Your task to perform on an android device: open app "VLC for Android" Image 0: 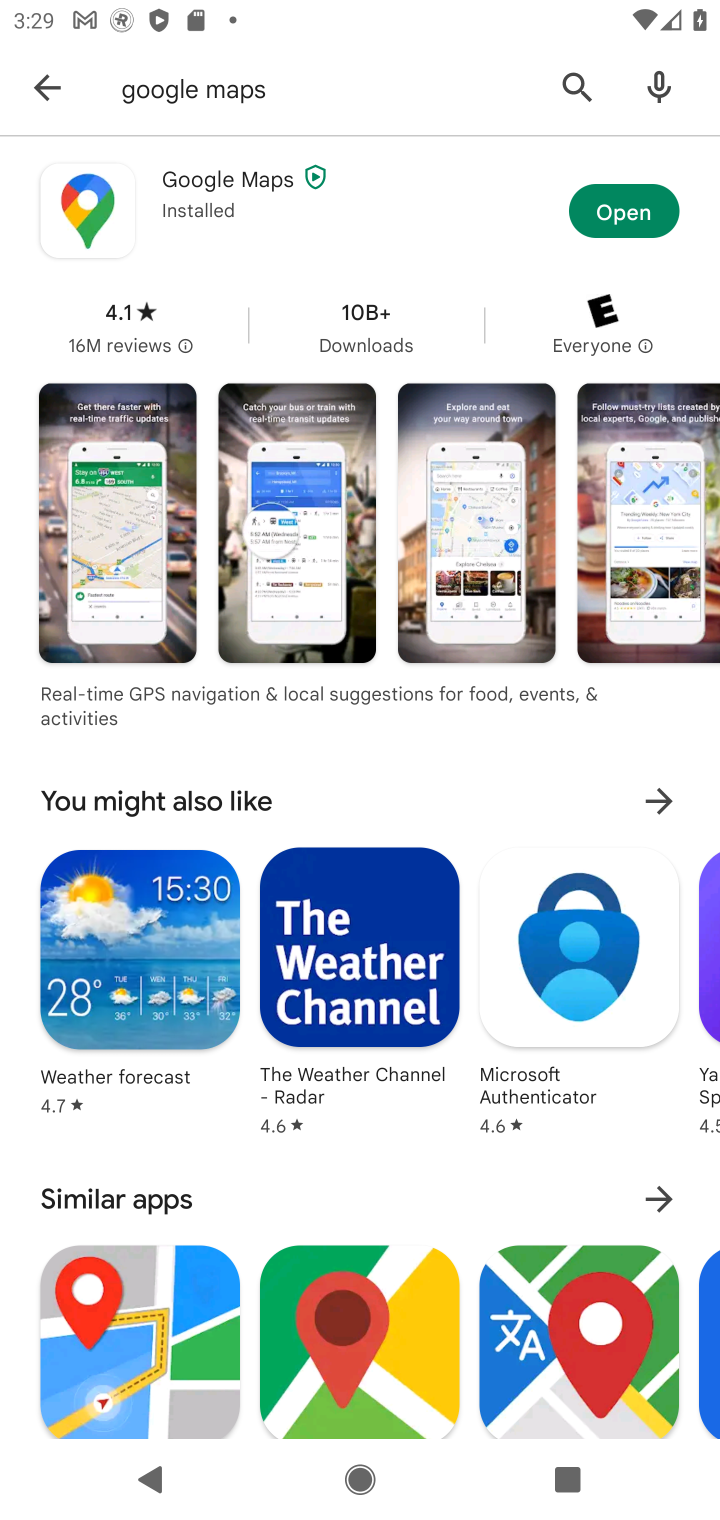
Step 0: press home button
Your task to perform on an android device: open app "VLC for Android" Image 1: 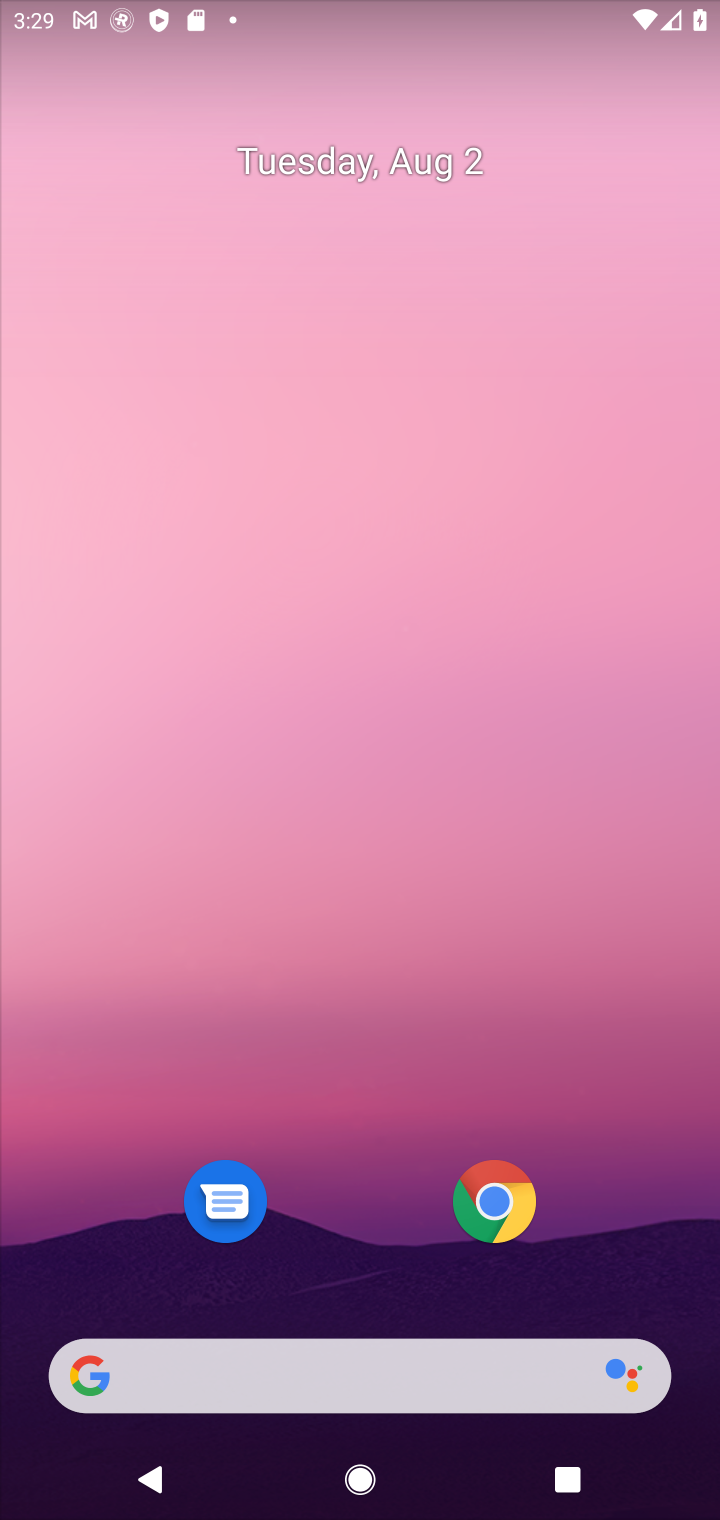
Step 1: drag from (378, 1292) to (416, 47)
Your task to perform on an android device: open app "VLC for Android" Image 2: 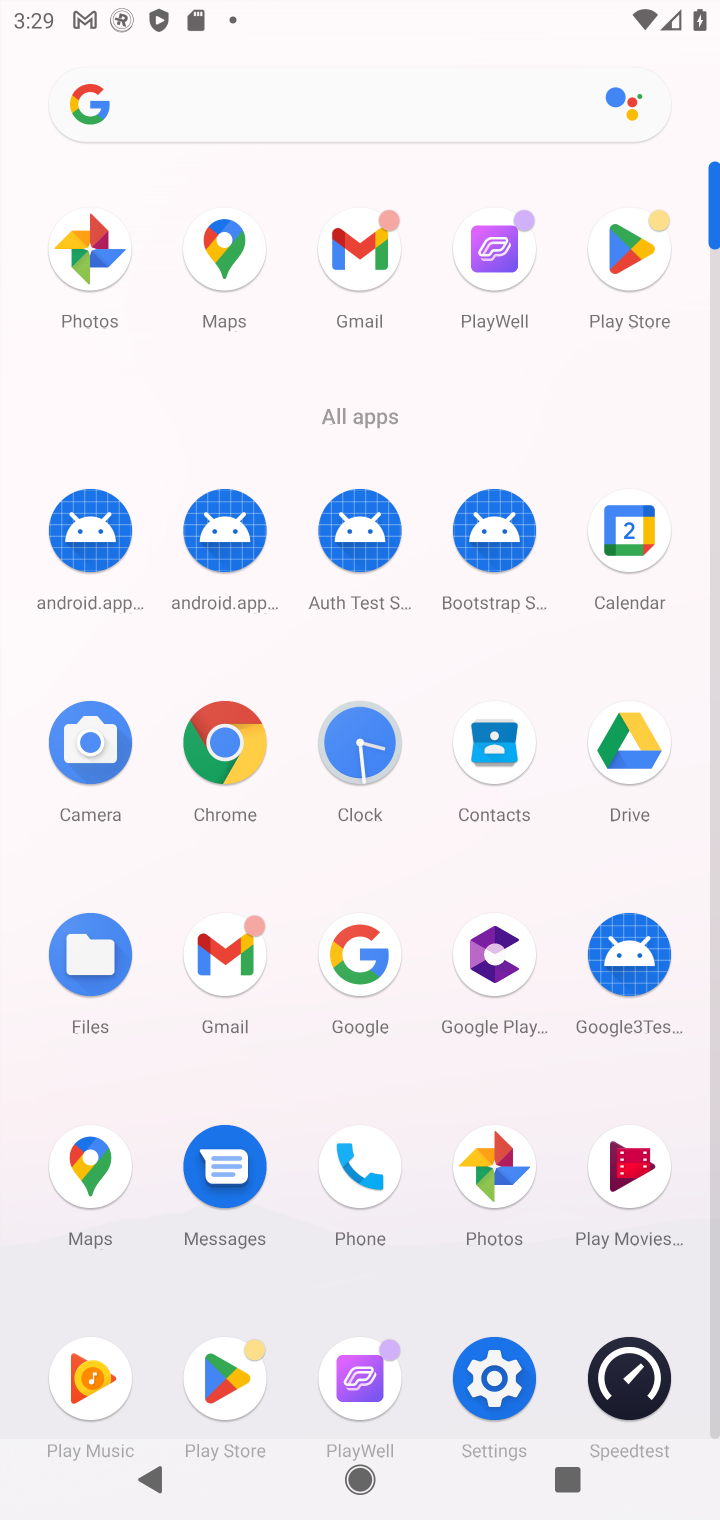
Step 2: click (622, 236)
Your task to perform on an android device: open app "VLC for Android" Image 3: 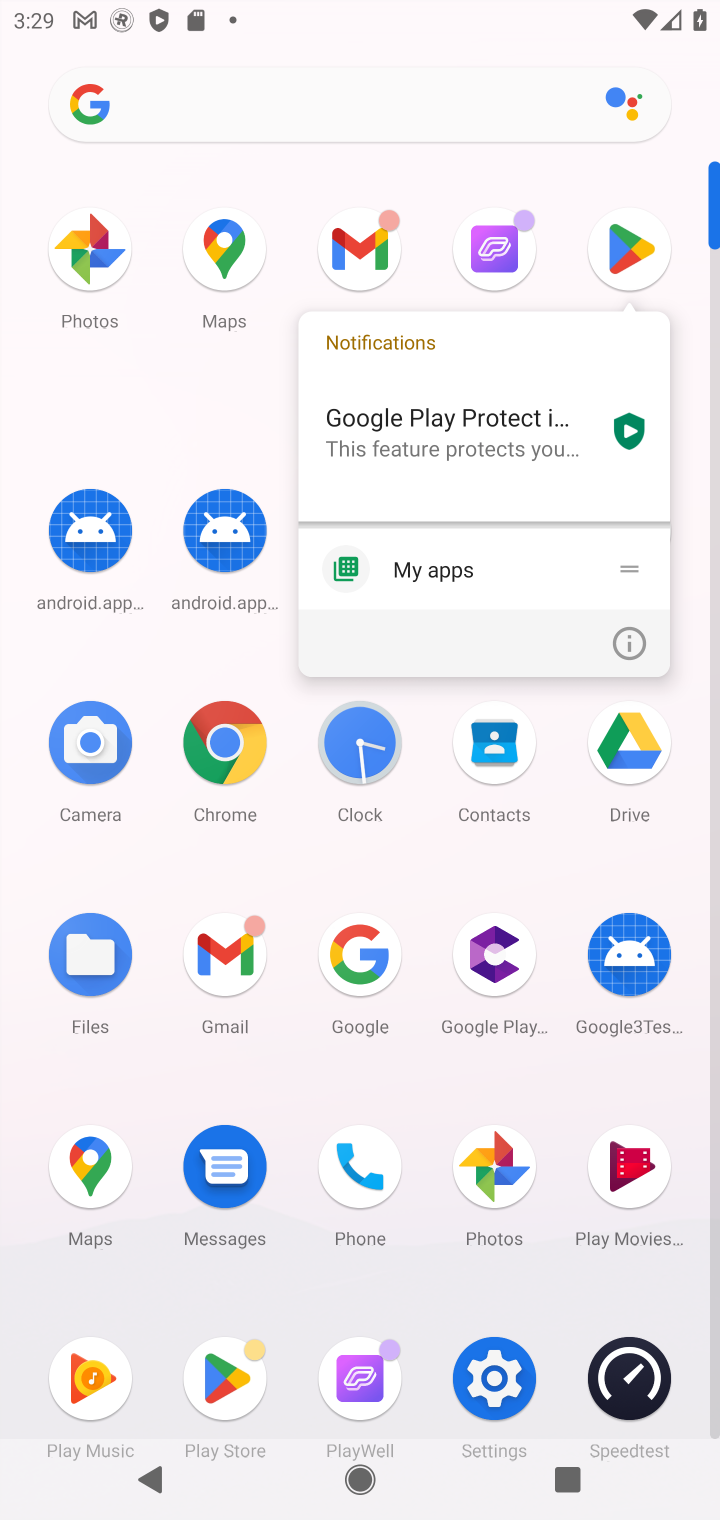
Step 3: click (625, 235)
Your task to perform on an android device: open app "VLC for Android" Image 4: 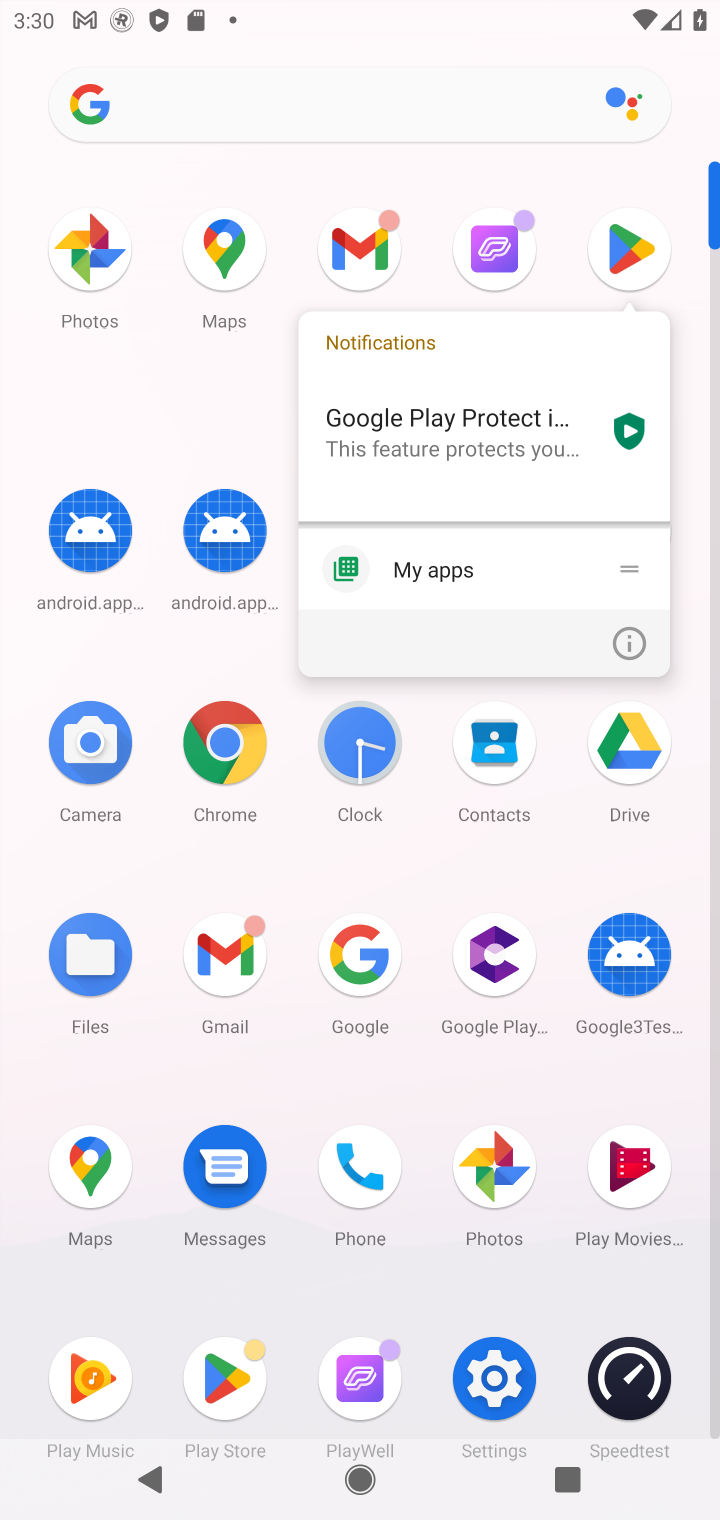
Step 4: click (623, 240)
Your task to perform on an android device: open app "VLC for Android" Image 5: 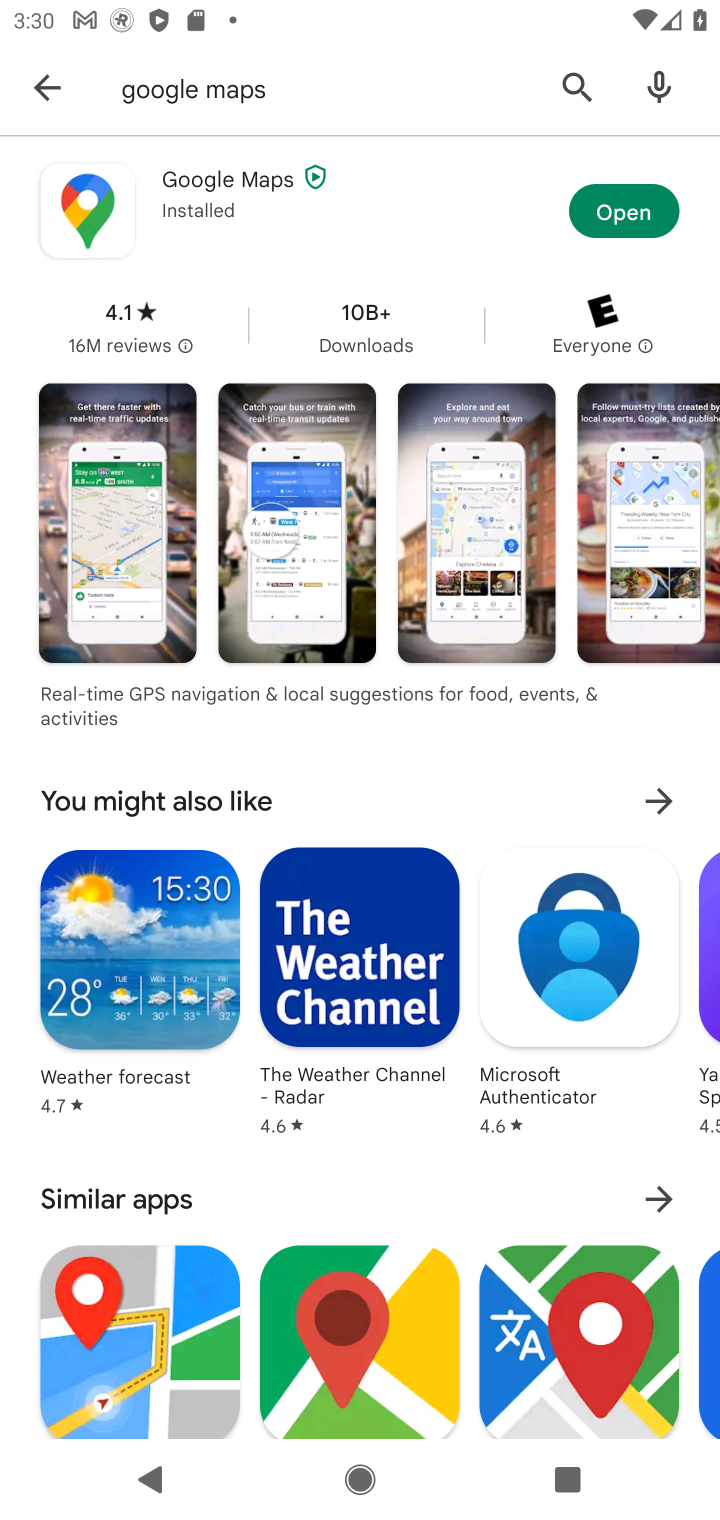
Step 5: click (575, 79)
Your task to perform on an android device: open app "VLC for Android" Image 6: 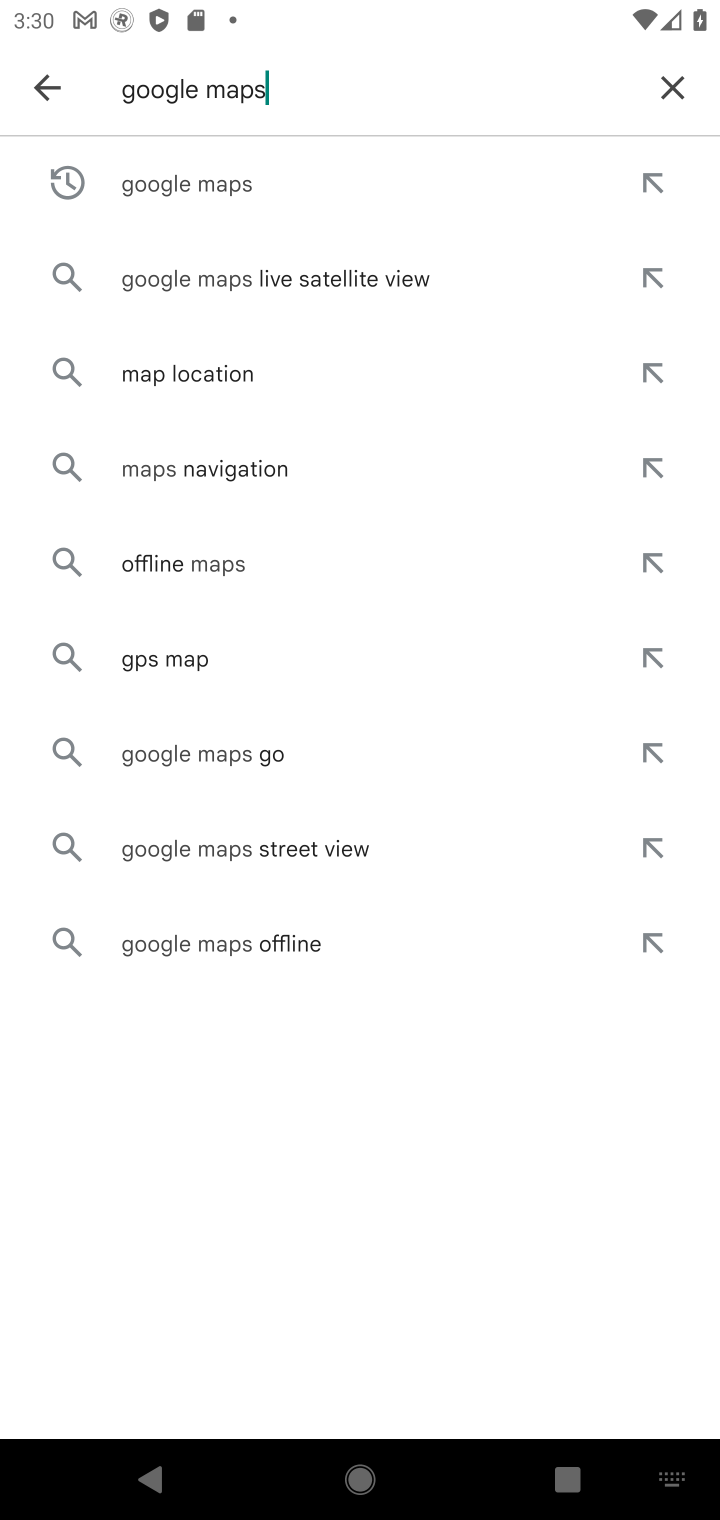
Step 6: click (673, 77)
Your task to perform on an android device: open app "VLC for Android" Image 7: 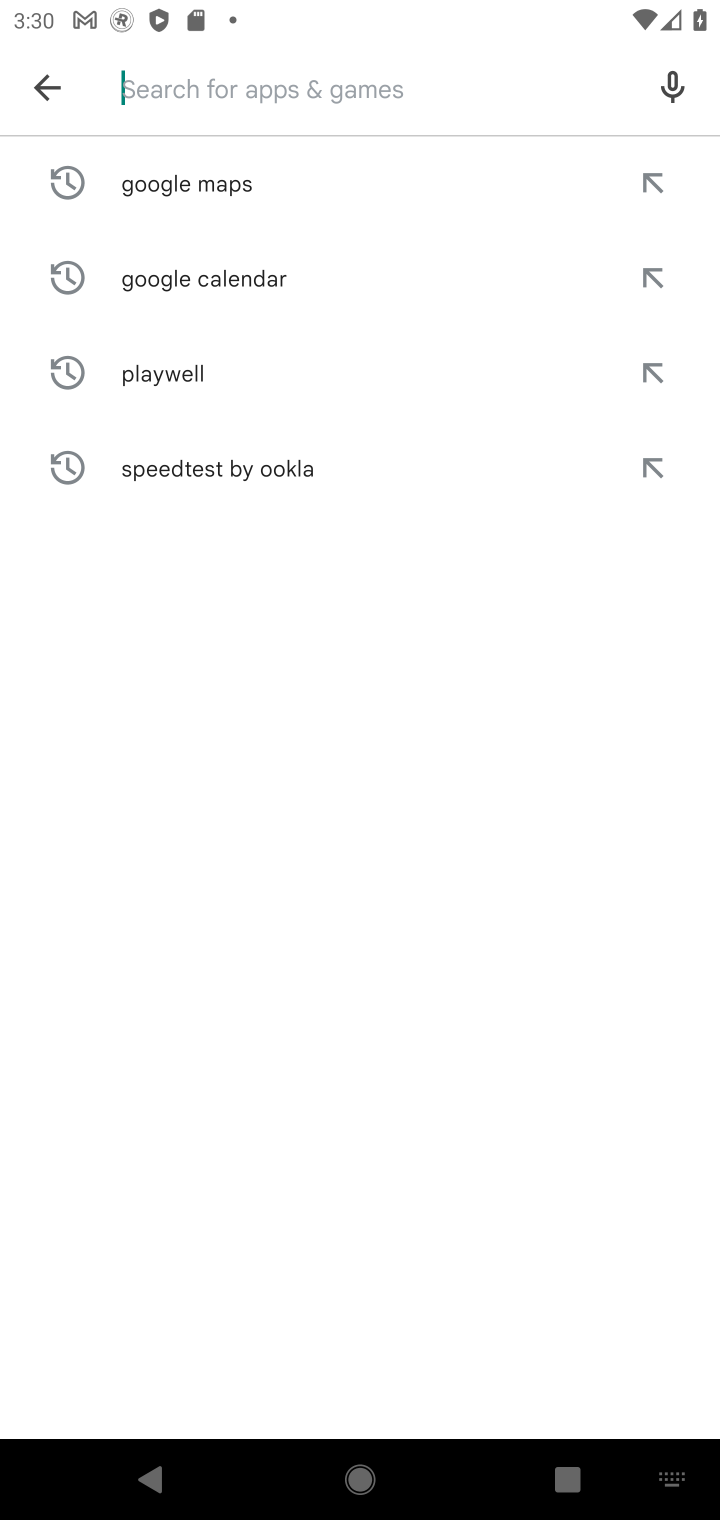
Step 7: type "VLC for Android"
Your task to perform on an android device: open app "VLC for Android" Image 8: 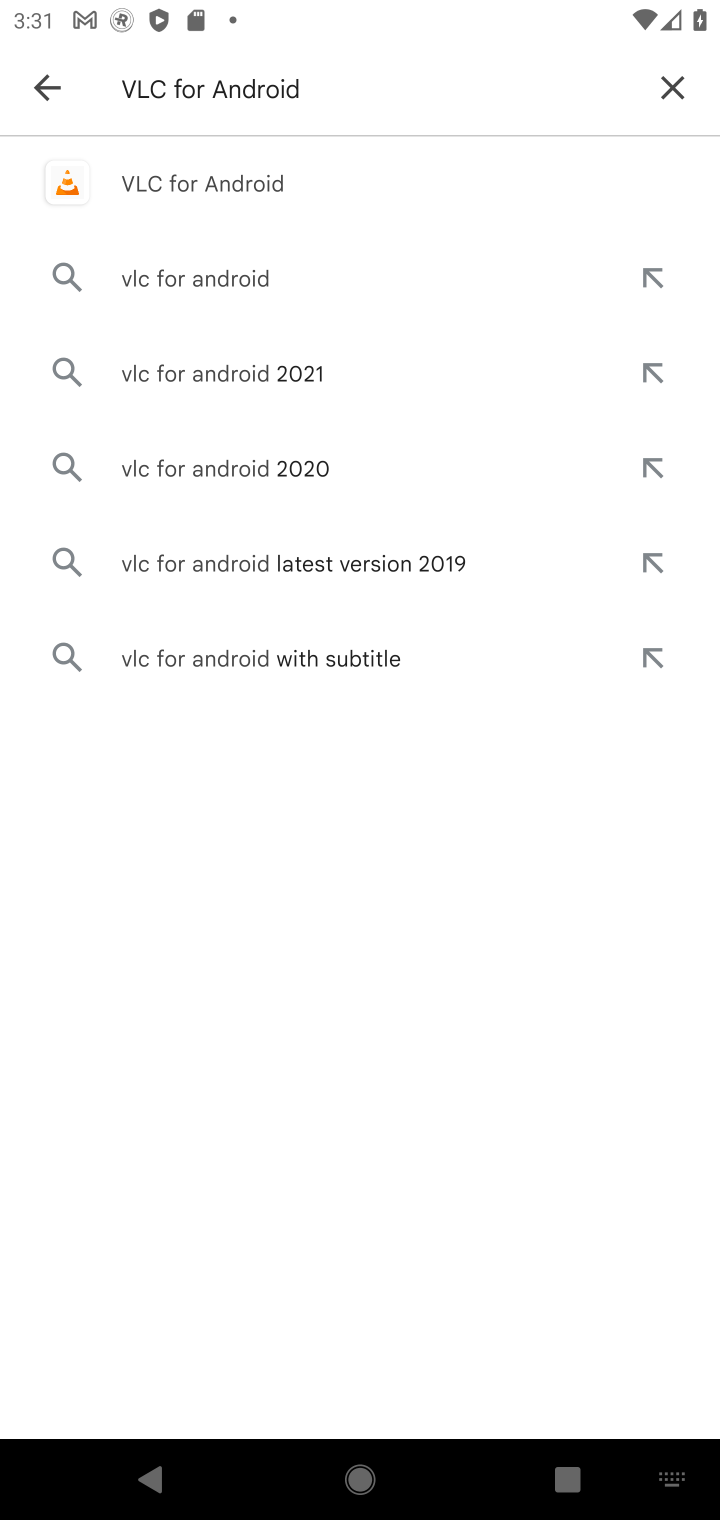
Step 8: click (300, 182)
Your task to perform on an android device: open app "VLC for Android" Image 9: 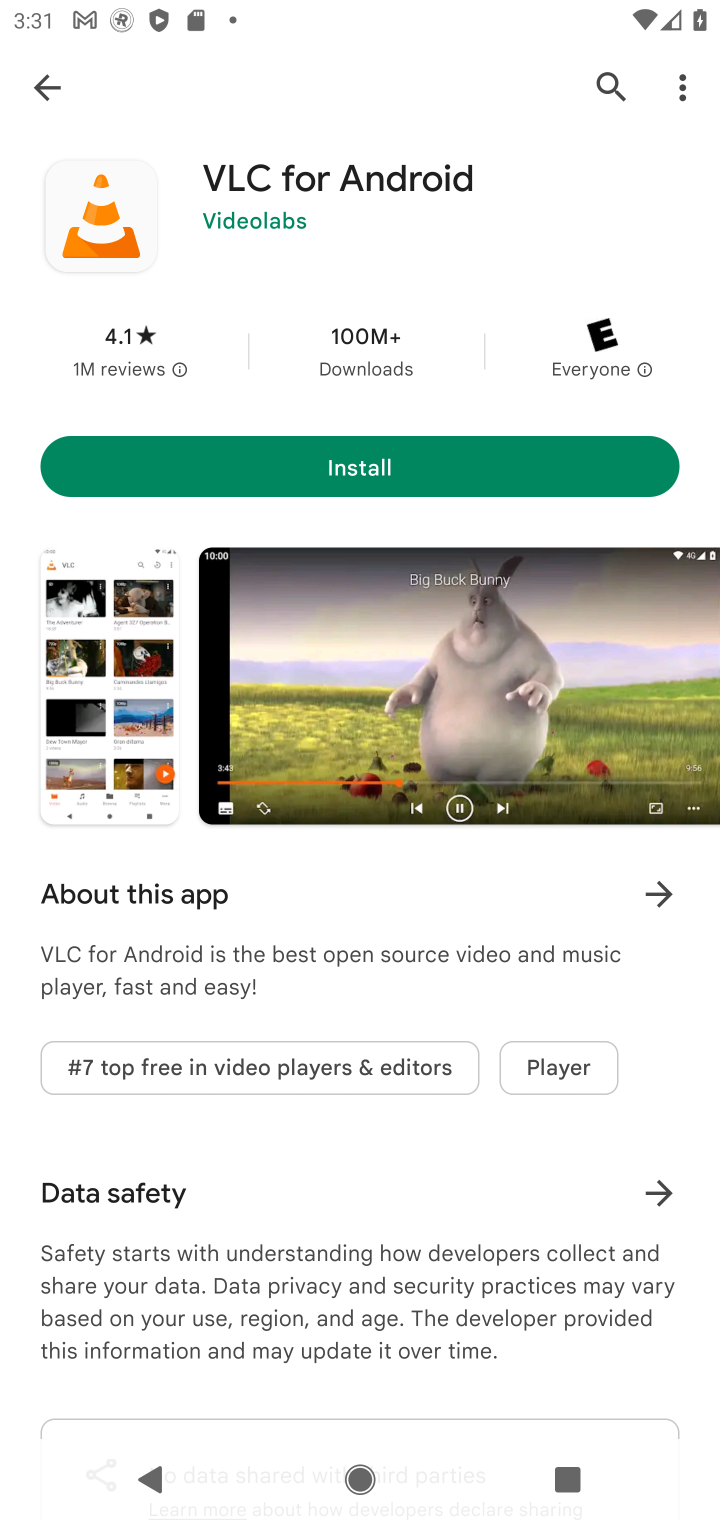
Step 9: task complete